Your task to perform on an android device: Open calendar and show me the fourth week of next month Image 0: 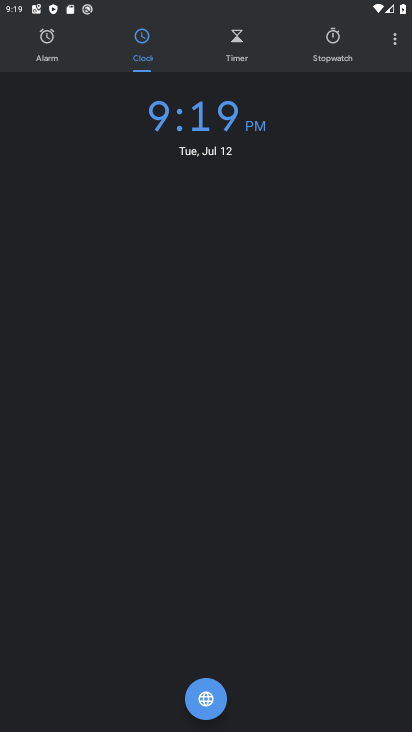
Step 0: drag from (166, 618) to (270, 140)
Your task to perform on an android device: Open calendar and show me the fourth week of next month Image 1: 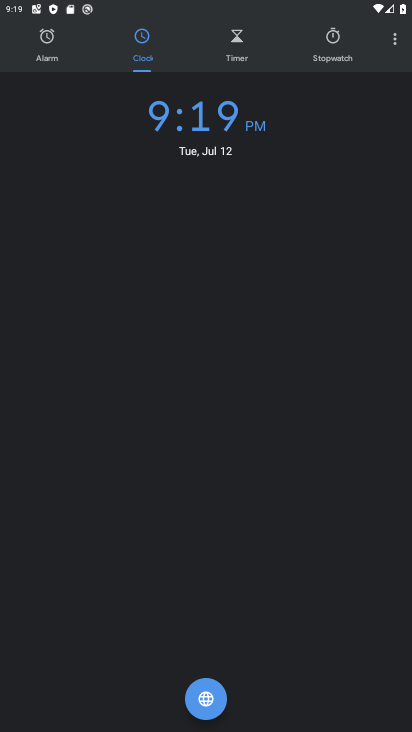
Step 1: press home button
Your task to perform on an android device: Open calendar and show me the fourth week of next month Image 2: 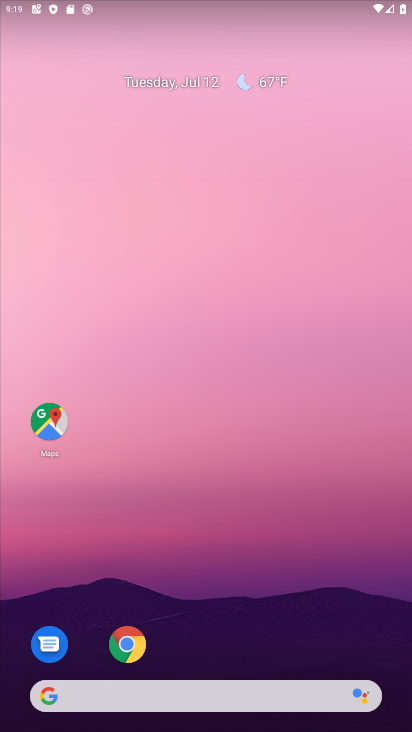
Step 2: drag from (169, 628) to (227, 403)
Your task to perform on an android device: Open calendar and show me the fourth week of next month Image 3: 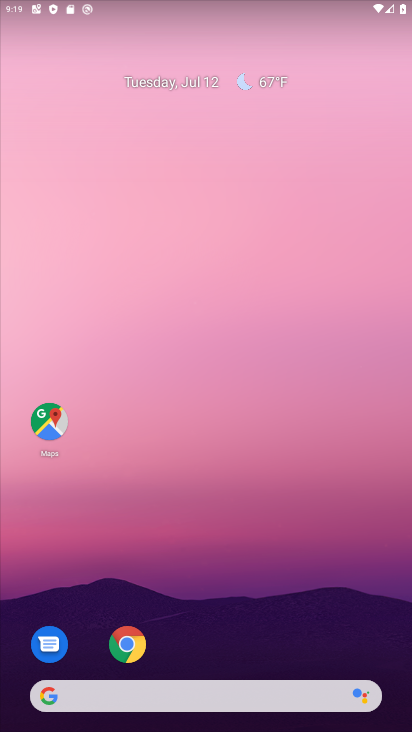
Step 3: drag from (210, 522) to (223, 228)
Your task to perform on an android device: Open calendar and show me the fourth week of next month Image 4: 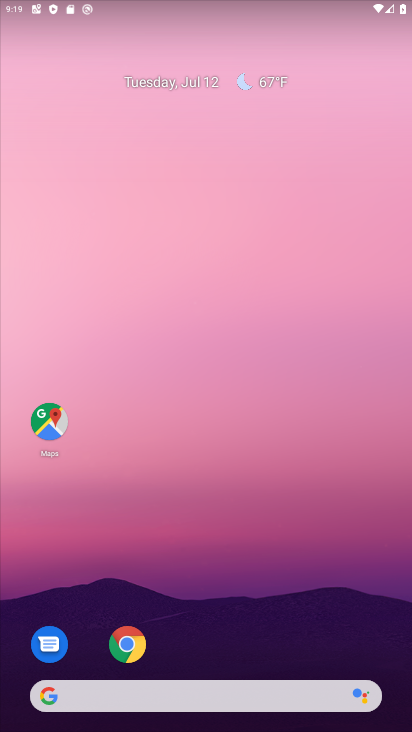
Step 4: drag from (190, 653) to (211, 273)
Your task to perform on an android device: Open calendar and show me the fourth week of next month Image 5: 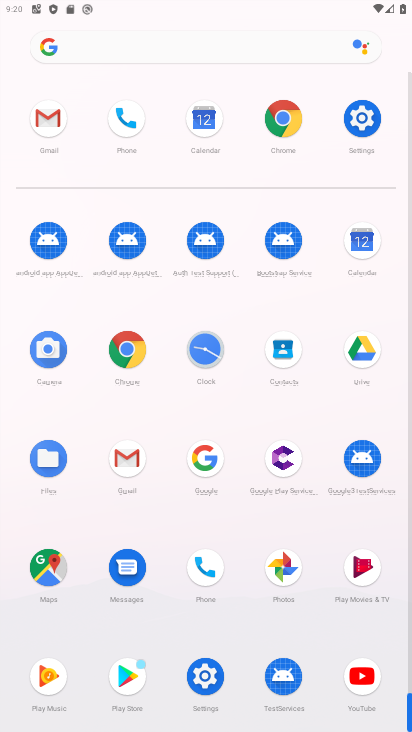
Step 5: click (364, 245)
Your task to perform on an android device: Open calendar and show me the fourth week of next month Image 6: 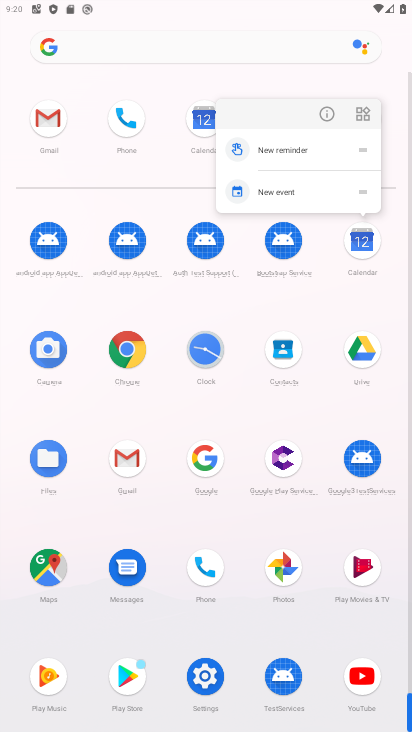
Step 6: click (328, 115)
Your task to perform on an android device: Open calendar and show me the fourth week of next month Image 7: 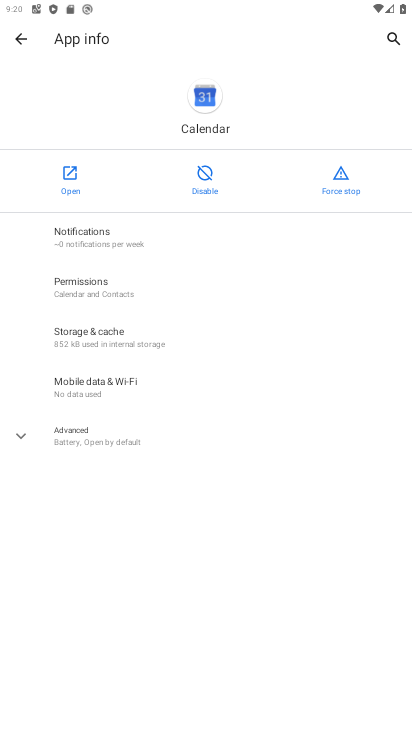
Step 7: click (53, 195)
Your task to perform on an android device: Open calendar and show me the fourth week of next month Image 8: 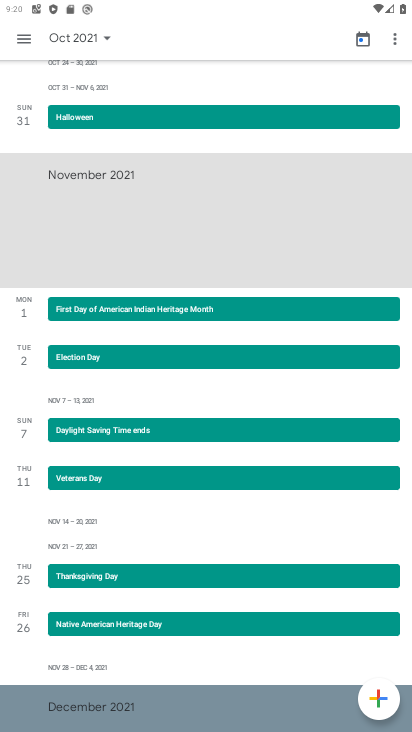
Step 8: click (76, 38)
Your task to perform on an android device: Open calendar and show me the fourth week of next month Image 9: 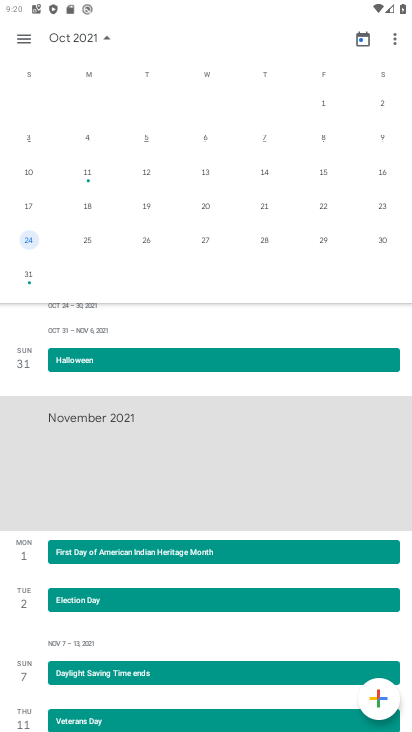
Step 9: drag from (54, 196) to (397, 151)
Your task to perform on an android device: Open calendar and show me the fourth week of next month Image 10: 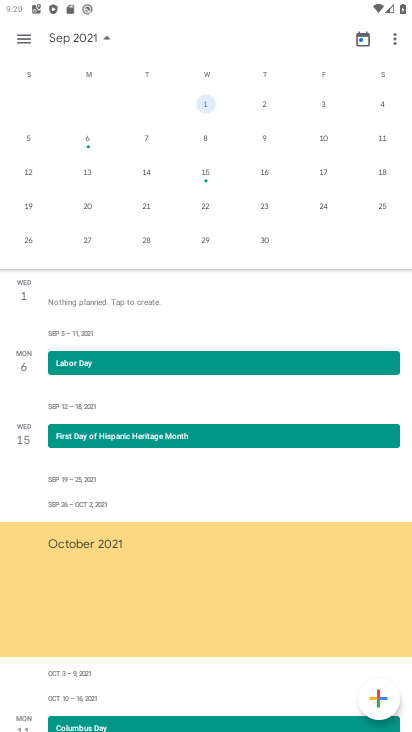
Step 10: drag from (34, 189) to (406, 70)
Your task to perform on an android device: Open calendar and show me the fourth week of next month Image 11: 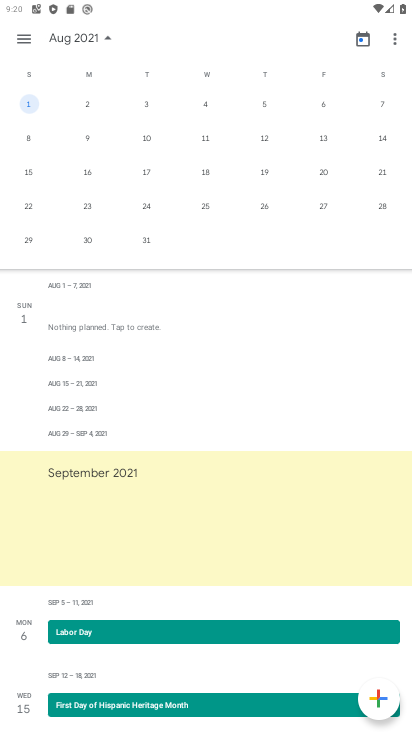
Step 11: drag from (41, 169) to (405, 85)
Your task to perform on an android device: Open calendar and show me the fourth week of next month Image 12: 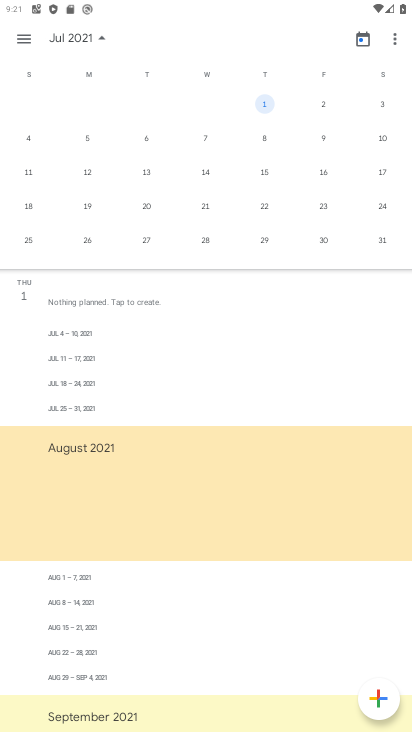
Step 12: drag from (350, 189) to (1, 271)
Your task to perform on an android device: Open calendar and show me the fourth week of next month Image 13: 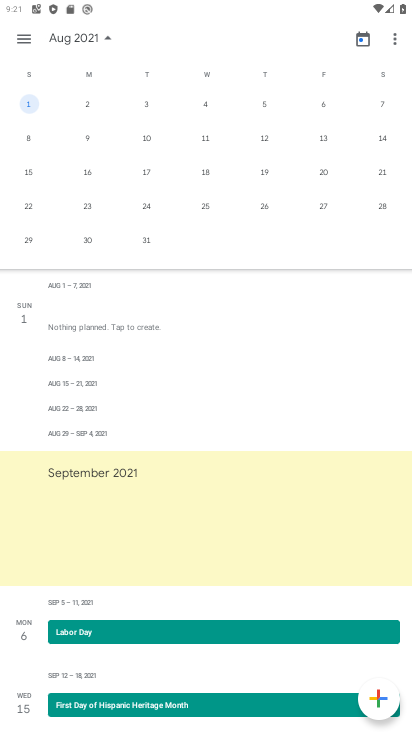
Step 13: click (326, 198)
Your task to perform on an android device: Open calendar and show me the fourth week of next month Image 14: 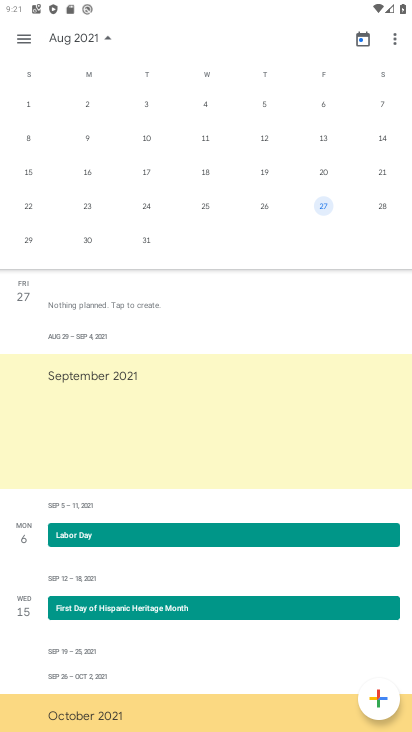
Step 14: task complete